Your task to perform on an android device: open a bookmark in the chrome app Image 0: 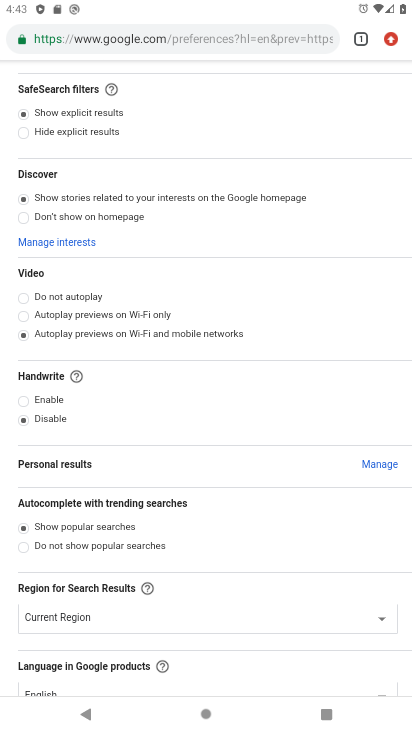
Step 0: click (210, 718)
Your task to perform on an android device: open a bookmark in the chrome app Image 1: 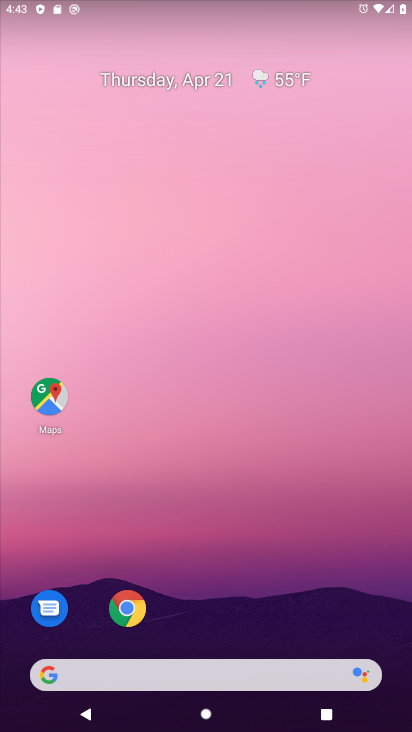
Step 1: click (127, 611)
Your task to perform on an android device: open a bookmark in the chrome app Image 2: 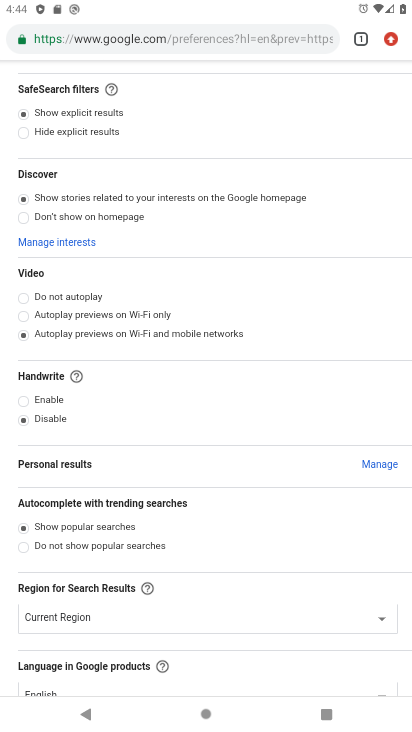
Step 2: drag from (227, 598) to (247, 319)
Your task to perform on an android device: open a bookmark in the chrome app Image 3: 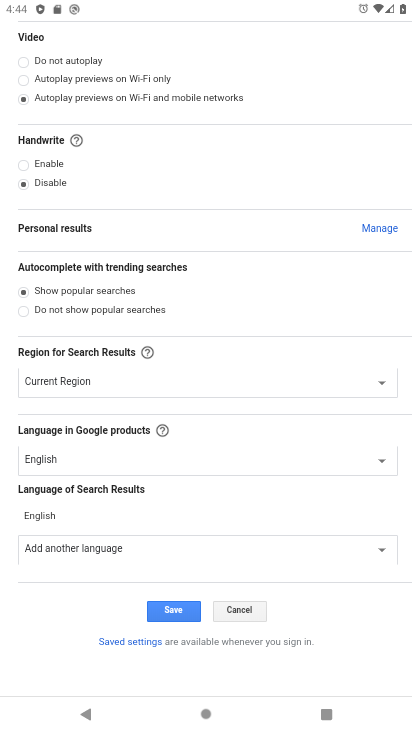
Step 3: drag from (267, 216) to (240, 476)
Your task to perform on an android device: open a bookmark in the chrome app Image 4: 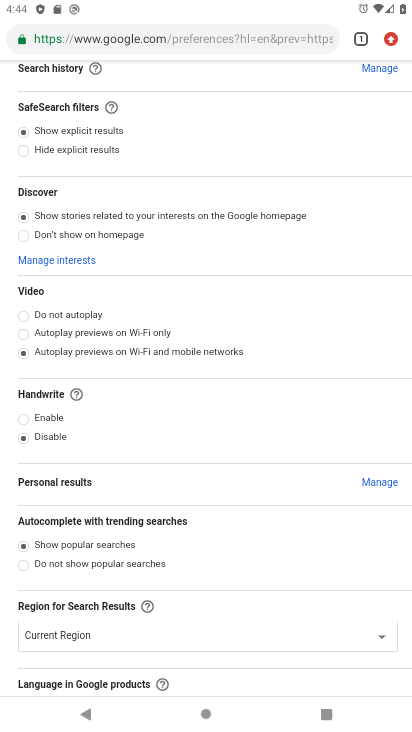
Step 4: click (85, 717)
Your task to perform on an android device: open a bookmark in the chrome app Image 5: 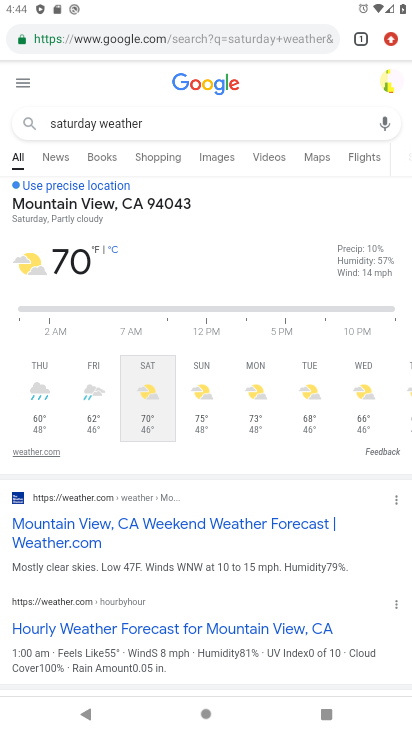
Step 5: click (23, 84)
Your task to perform on an android device: open a bookmark in the chrome app Image 6: 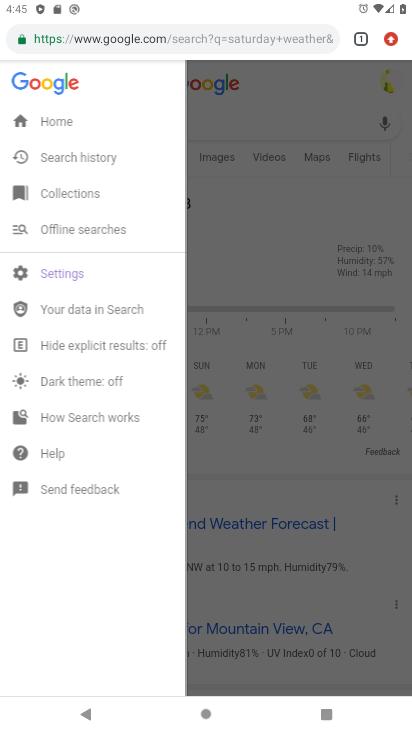
Step 6: click (237, 252)
Your task to perform on an android device: open a bookmark in the chrome app Image 7: 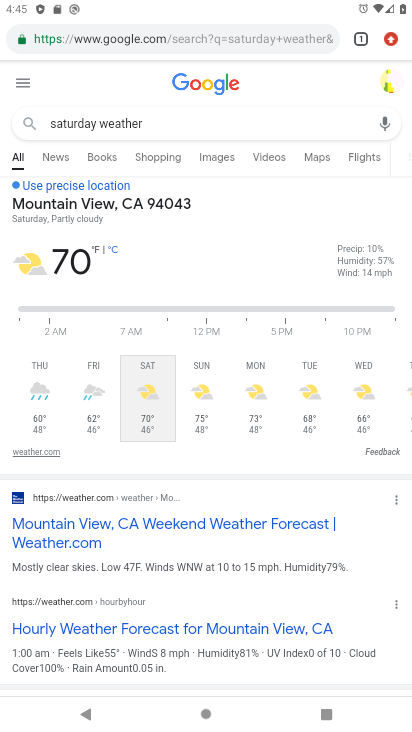
Step 7: task complete